Your task to perform on an android device: add a contact Image 0: 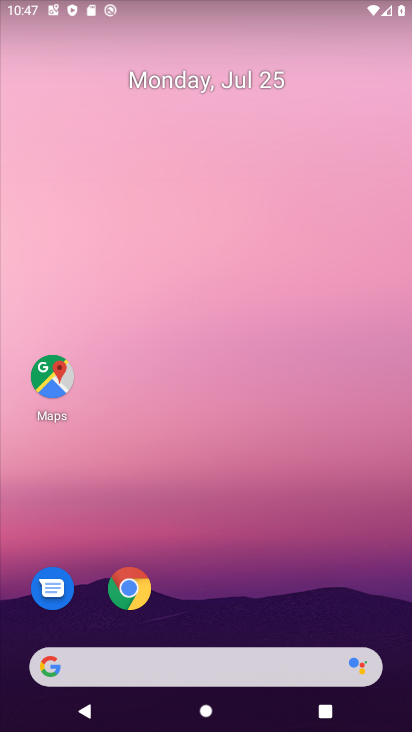
Step 0: drag from (271, 603) to (228, 75)
Your task to perform on an android device: add a contact Image 1: 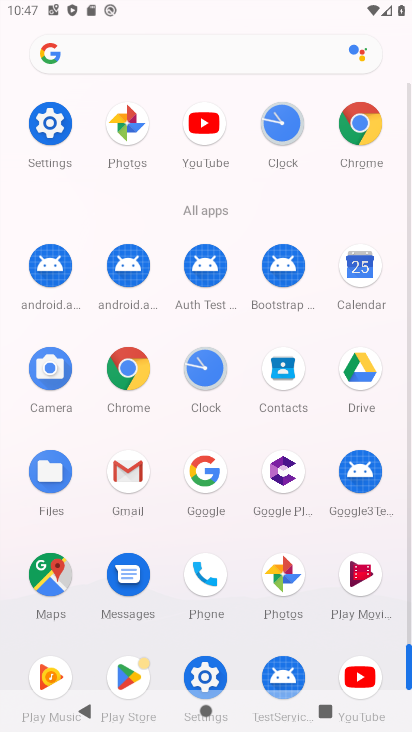
Step 1: click (283, 383)
Your task to perform on an android device: add a contact Image 2: 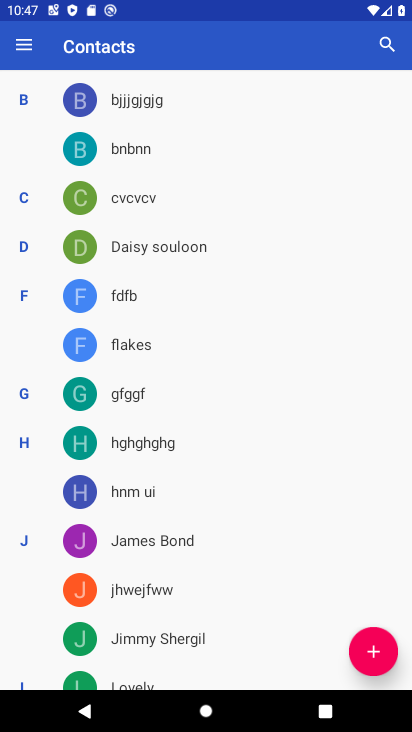
Step 2: click (362, 652)
Your task to perform on an android device: add a contact Image 3: 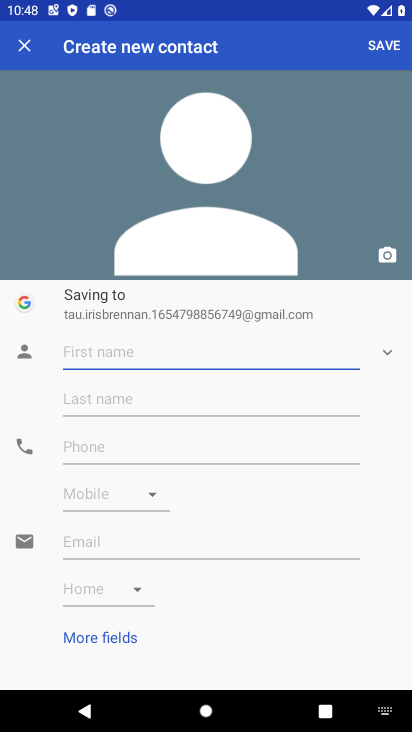
Step 3: type "f5rfffef"
Your task to perform on an android device: add a contact Image 4: 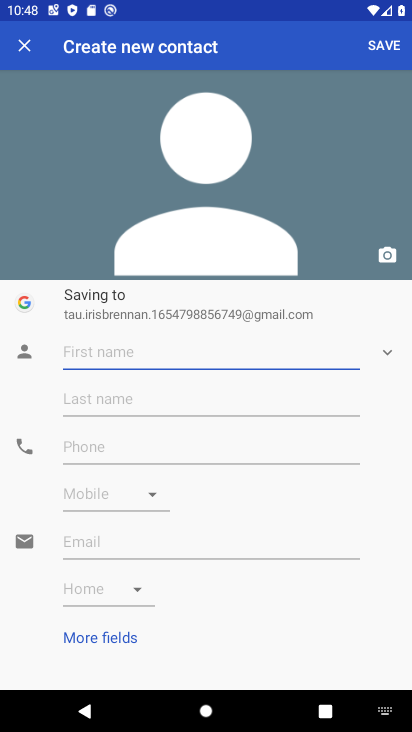
Step 4: click (173, 448)
Your task to perform on an android device: add a contact Image 5: 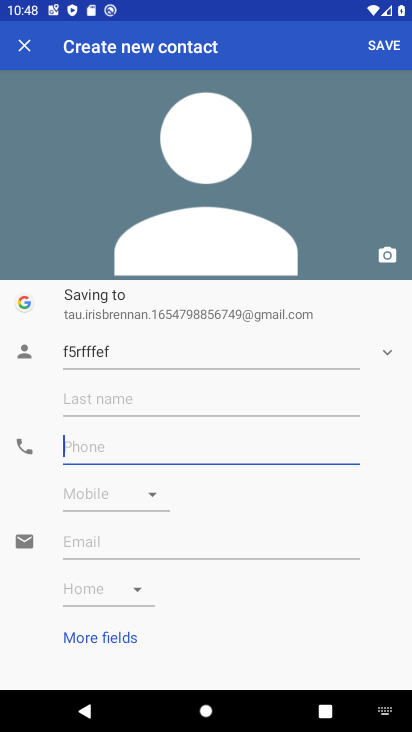
Step 5: type "6665550000"
Your task to perform on an android device: add a contact Image 6: 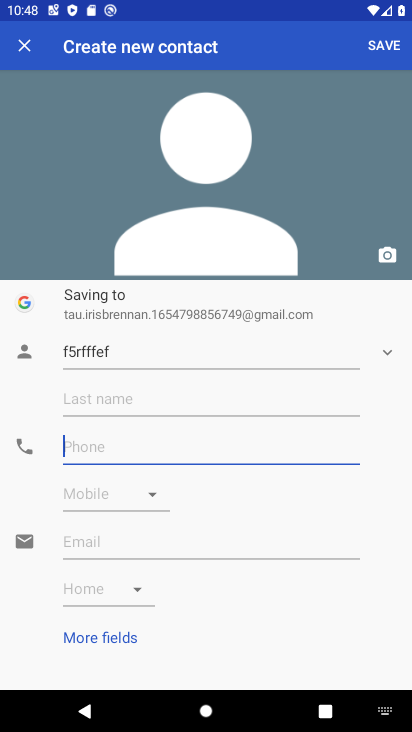
Step 6: click (375, 40)
Your task to perform on an android device: add a contact Image 7: 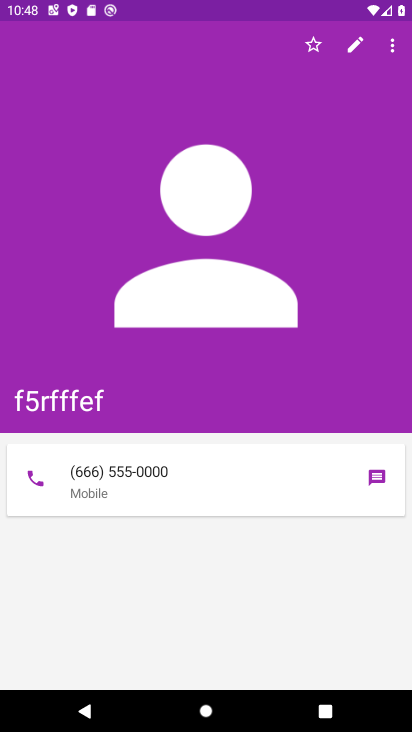
Step 7: task complete